Your task to perform on an android device: open app "ColorNote Notepad Notes" Image 0: 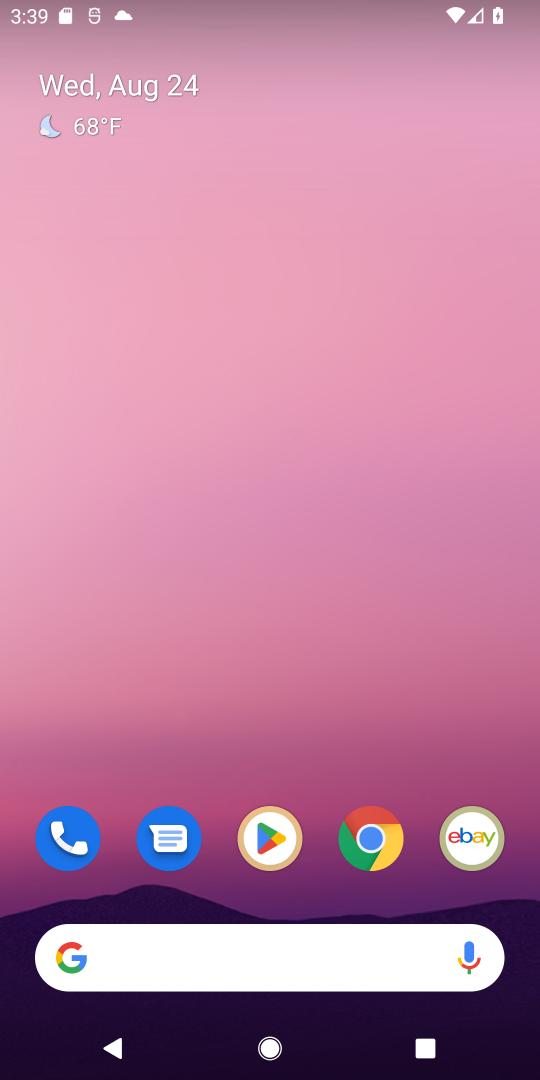
Step 0: click (283, 837)
Your task to perform on an android device: open app "ColorNote Notepad Notes" Image 1: 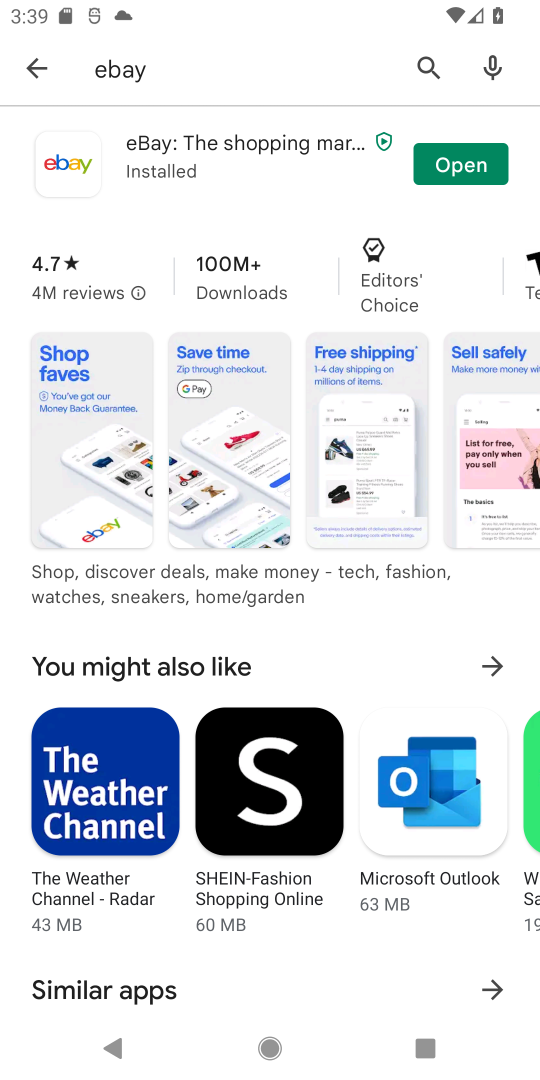
Step 1: click (23, 71)
Your task to perform on an android device: open app "ColorNote Notepad Notes" Image 2: 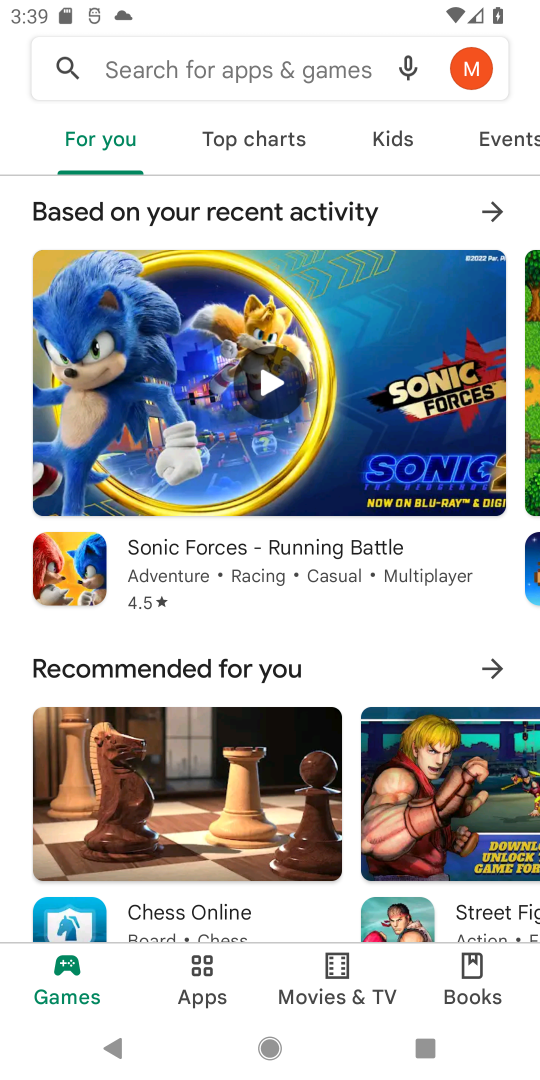
Step 2: click (270, 65)
Your task to perform on an android device: open app "ColorNote Notepad Notes" Image 3: 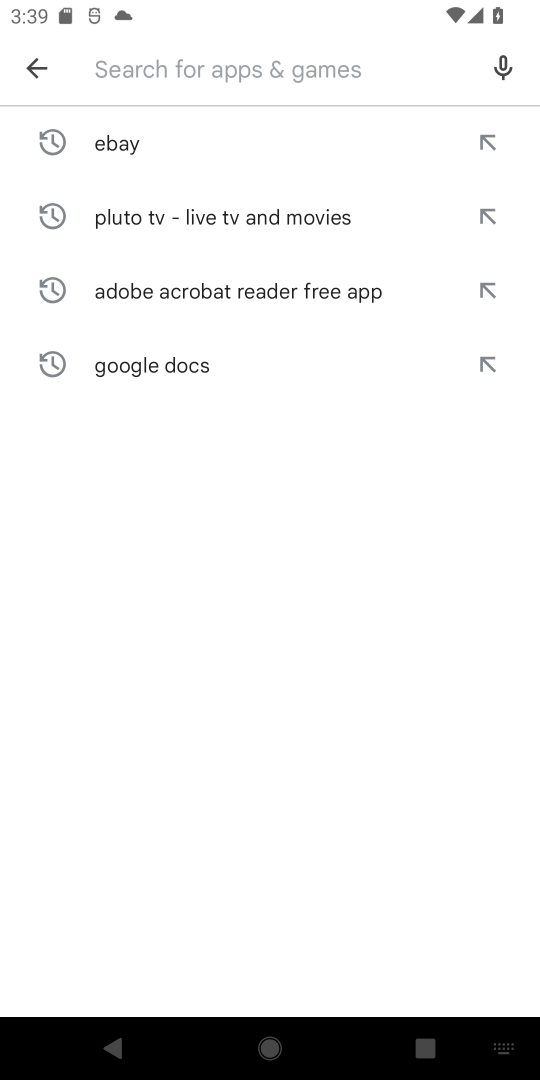
Step 3: type "ColorNote Notepad Notes"
Your task to perform on an android device: open app "ColorNote Notepad Notes" Image 4: 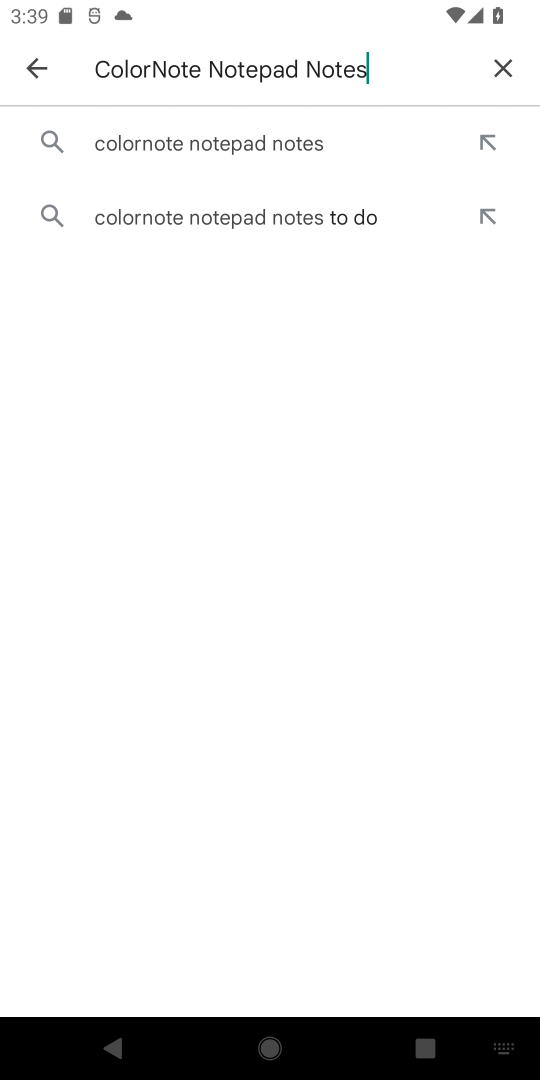
Step 4: click (157, 133)
Your task to perform on an android device: open app "ColorNote Notepad Notes" Image 5: 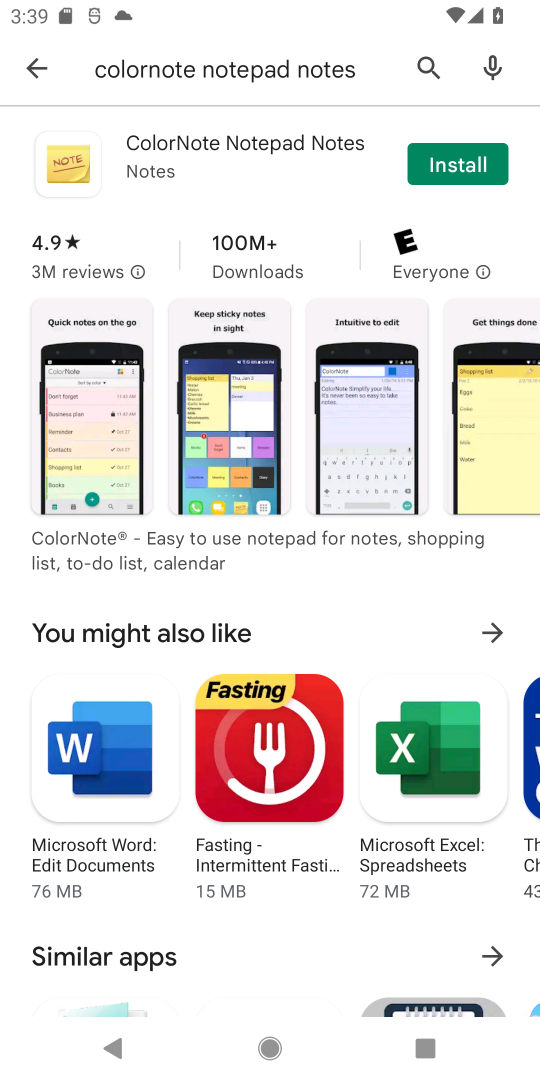
Step 5: task complete